Your task to perform on an android device: turn off picture-in-picture Image 0: 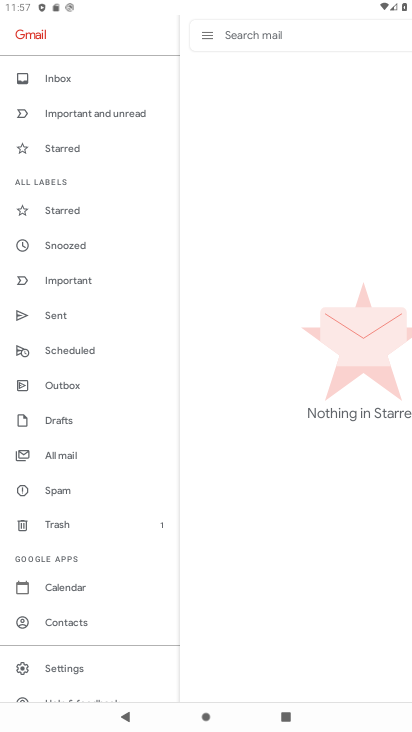
Step 0: press home button
Your task to perform on an android device: turn off picture-in-picture Image 1: 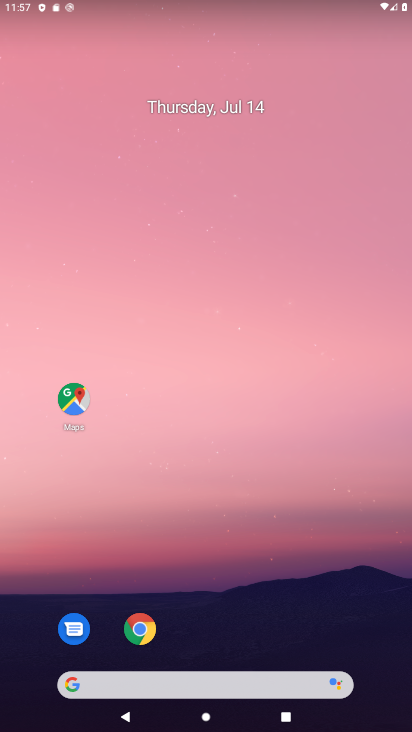
Step 1: drag from (284, 515) to (231, 115)
Your task to perform on an android device: turn off picture-in-picture Image 2: 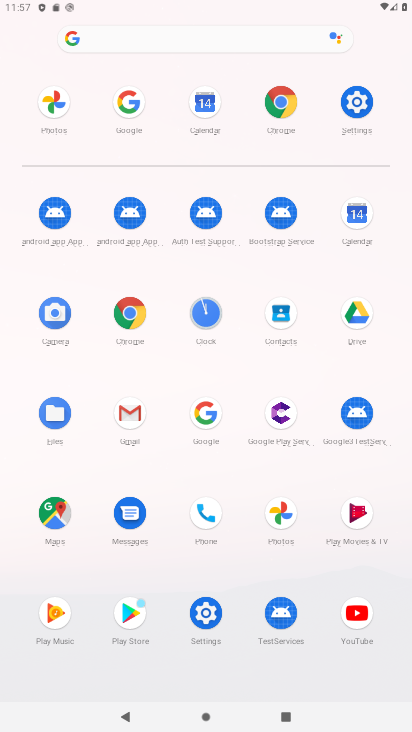
Step 2: click (139, 307)
Your task to perform on an android device: turn off picture-in-picture Image 3: 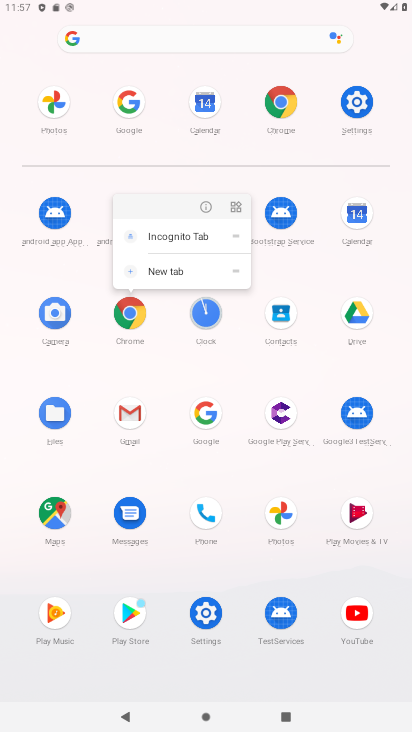
Step 3: click (205, 201)
Your task to perform on an android device: turn off picture-in-picture Image 4: 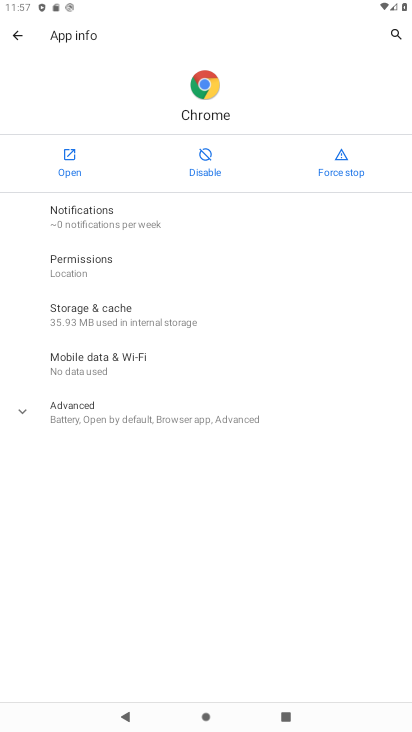
Step 4: click (136, 423)
Your task to perform on an android device: turn off picture-in-picture Image 5: 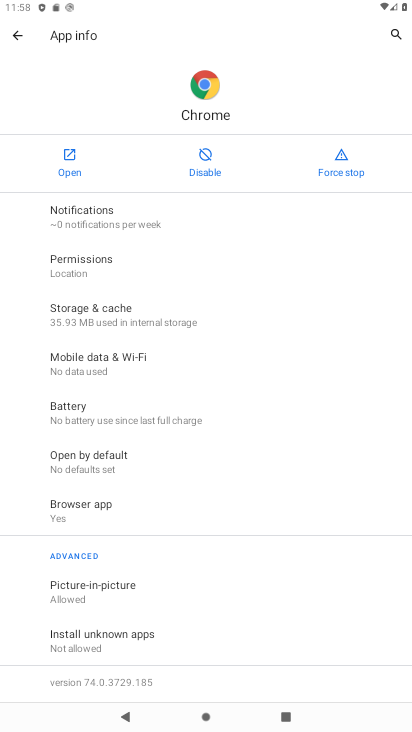
Step 5: click (100, 583)
Your task to perform on an android device: turn off picture-in-picture Image 6: 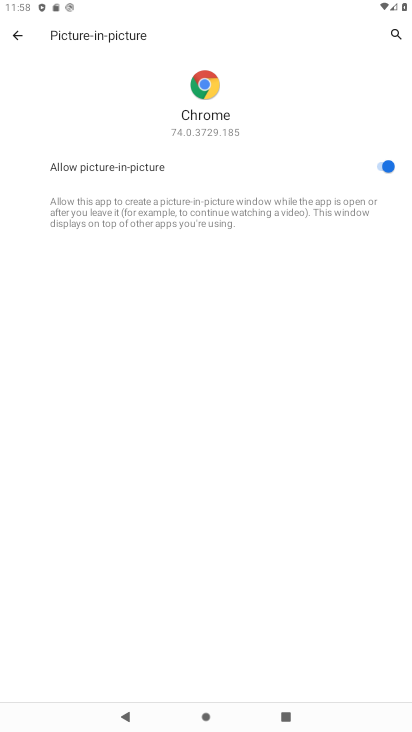
Step 6: click (377, 166)
Your task to perform on an android device: turn off picture-in-picture Image 7: 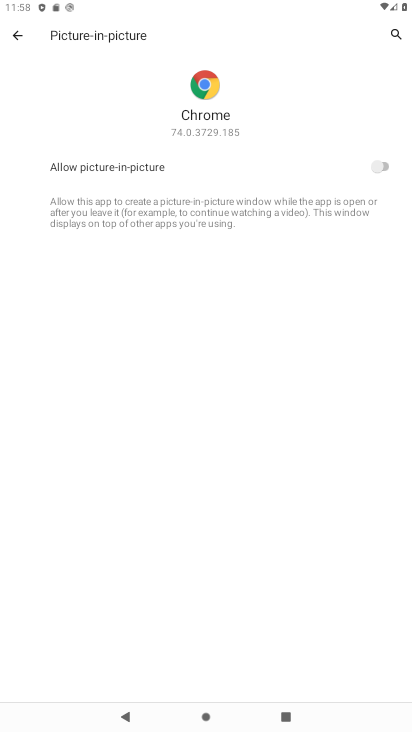
Step 7: task complete